Your task to perform on an android device: See recent photos Image 0: 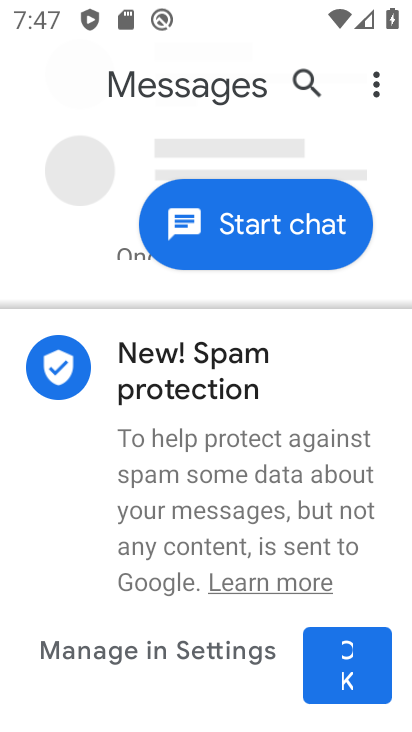
Step 0: press home button
Your task to perform on an android device: See recent photos Image 1: 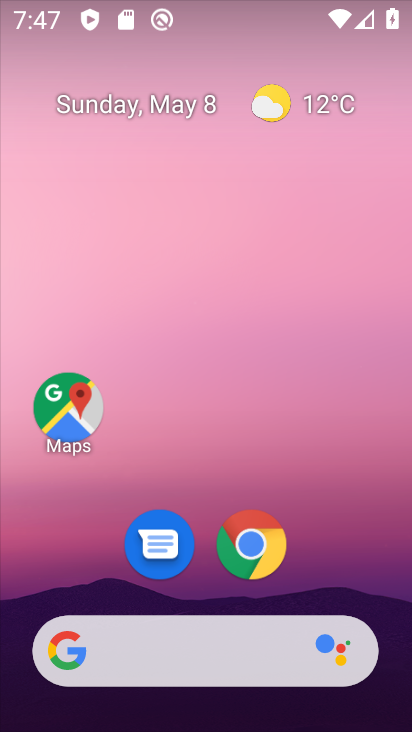
Step 1: drag from (360, 554) to (132, 16)
Your task to perform on an android device: See recent photos Image 2: 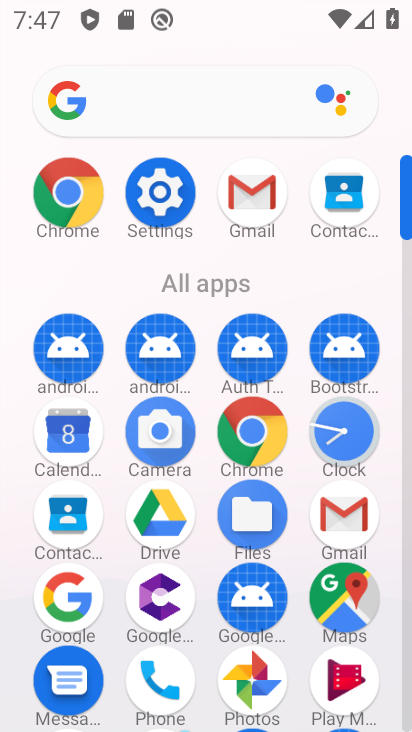
Step 2: click (242, 681)
Your task to perform on an android device: See recent photos Image 3: 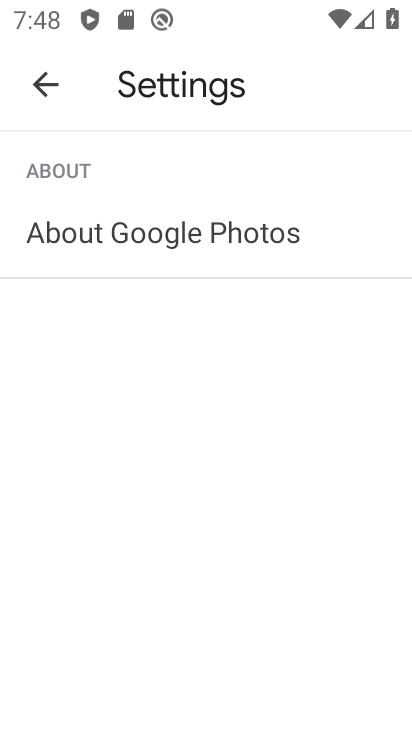
Step 3: click (48, 85)
Your task to perform on an android device: See recent photos Image 4: 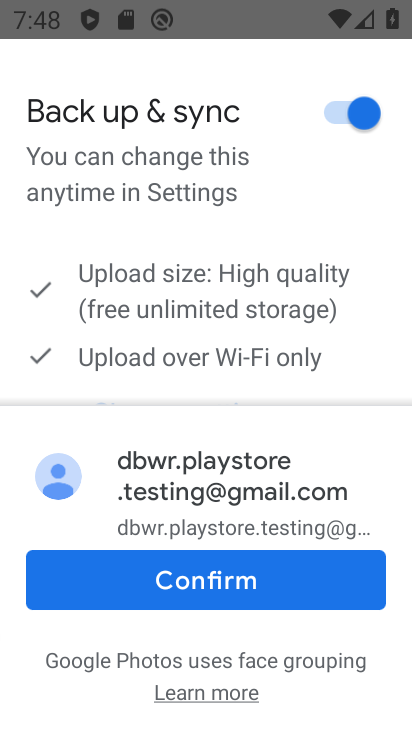
Step 4: click (169, 579)
Your task to perform on an android device: See recent photos Image 5: 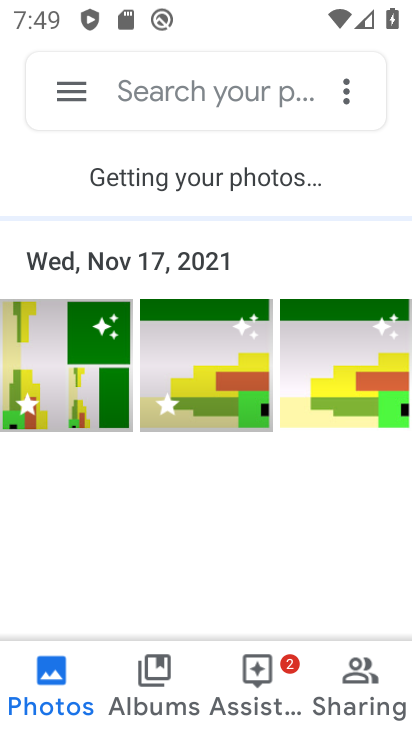
Step 5: task complete